Your task to perform on an android device: change the clock display to analog Image 0: 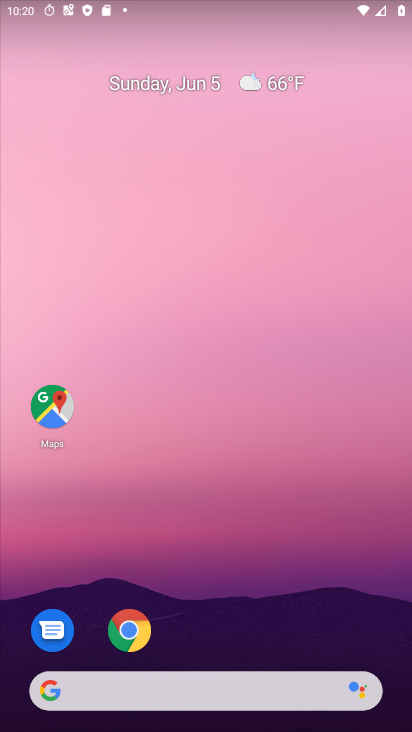
Step 0: drag from (200, 723) to (194, 27)
Your task to perform on an android device: change the clock display to analog Image 1: 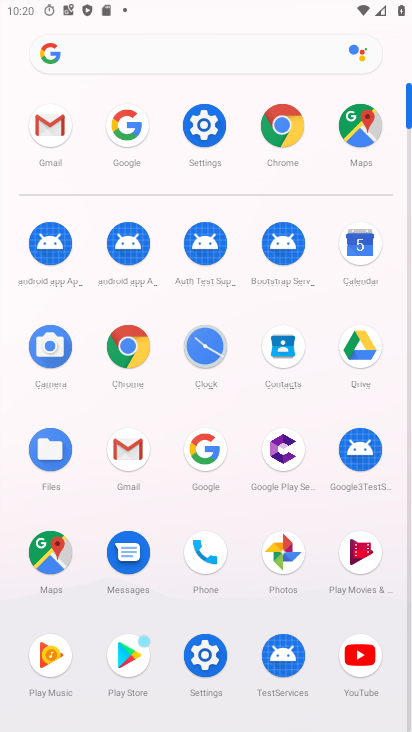
Step 1: click (205, 346)
Your task to perform on an android device: change the clock display to analog Image 2: 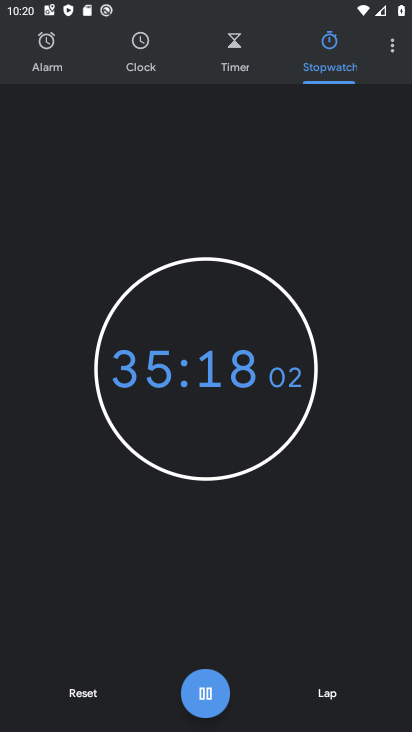
Step 2: click (393, 51)
Your task to perform on an android device: change the clock display to analog Image 3: 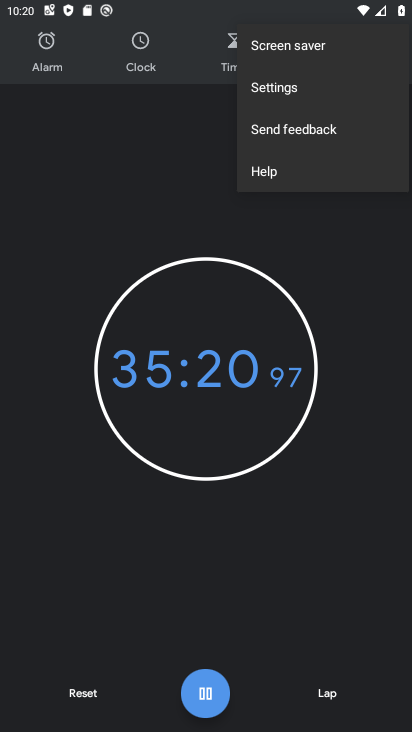
Step 3: click (286, 85)
Your task to perform on an android device: change the clock display to analog Image 4: 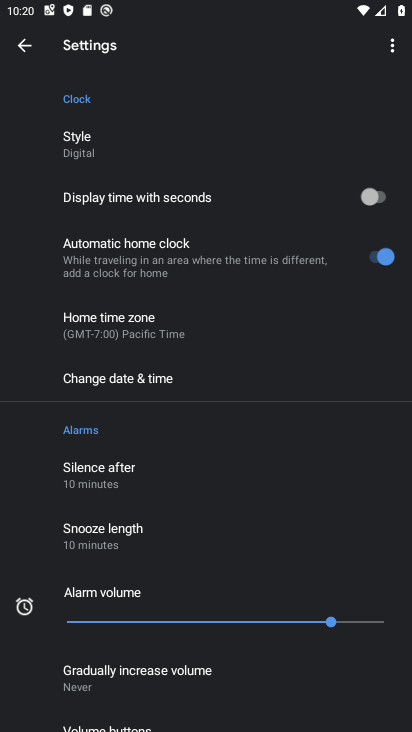
Step 4: click (76, 150)
Your task to perform on an android device: change the clock display to analog Image 5: 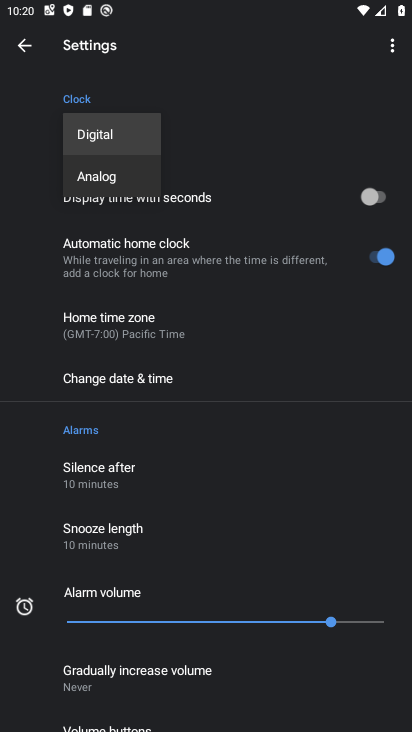
Step 5: click (93, 174)
Your task to perform on an android device: change the clock display to analog Image 6: 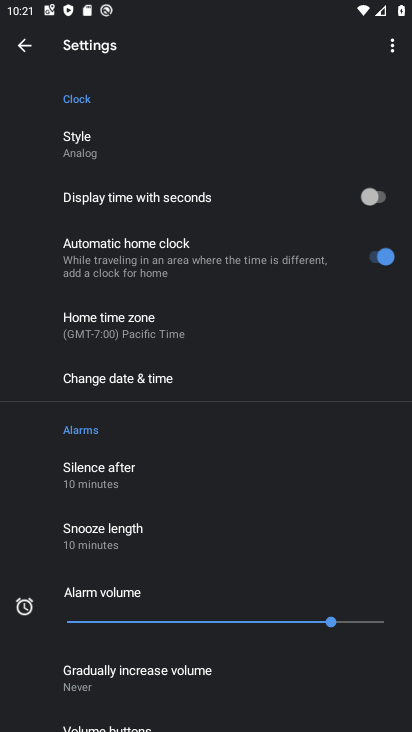
Step 6: task complete